Your task to perform on an android device: allow cookies in the chrome app Image 0: 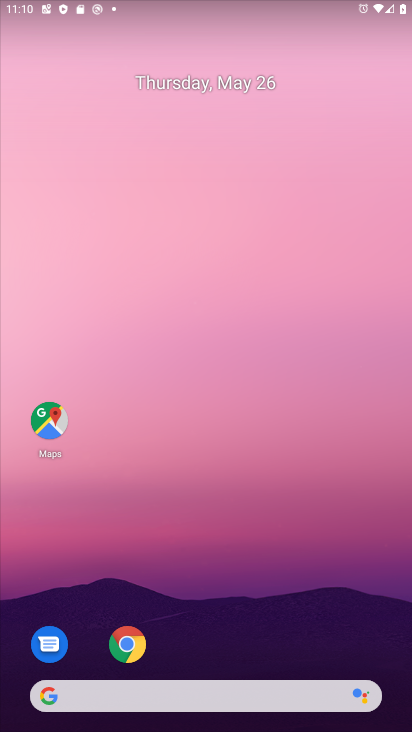
Step 0: click (121, 638)
Your task to perform on an android device: allow cookies in the chrome app Image 1: 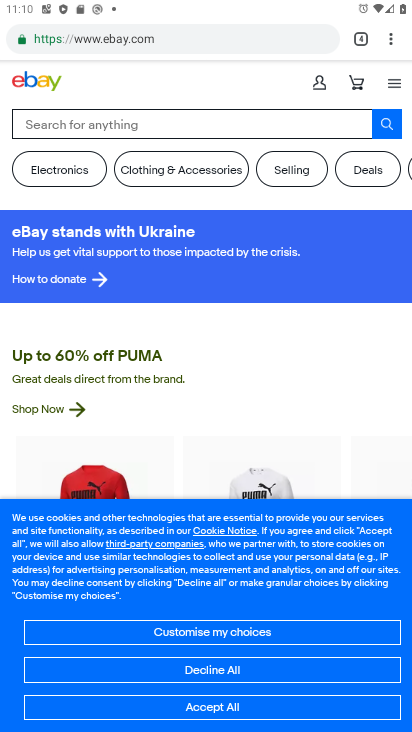
Step 1: click (392, 31)
Your task to perform on an android device: allow cookies in the chrome app Image 2: 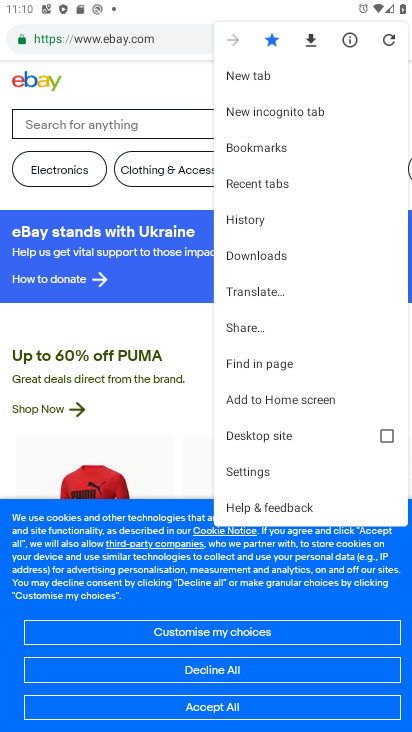
Step 2: click (268, 465)
Your task to perform on an android device: allow cookies in the chrome app Image 3: 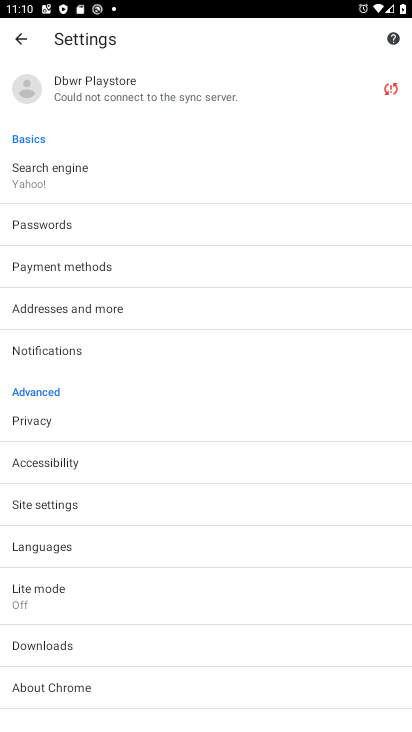
Step 3: click (64, 486)
Your task to perform on an android device: allow cookies in the chrome app Image 4: 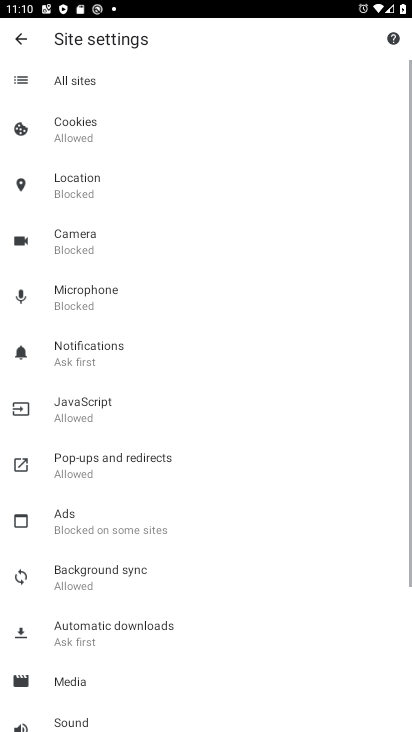
Step 4: click (133, 114)
Your task to perform on an android device: allow cookies in the chrome app Image 5: 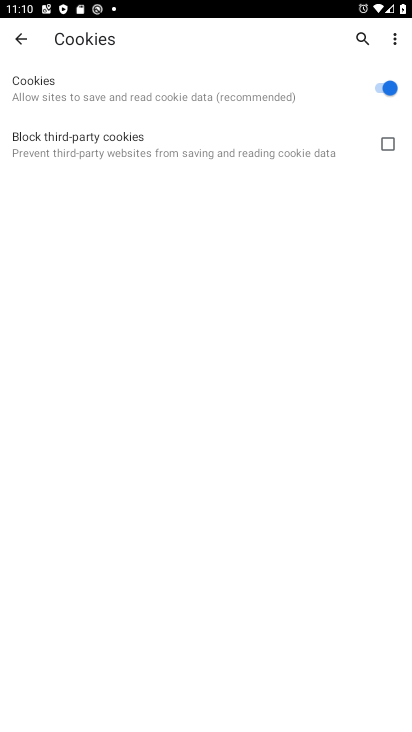
Step 5: task complete